Your task to perform on an android device: turn on airplane mode Image 0: 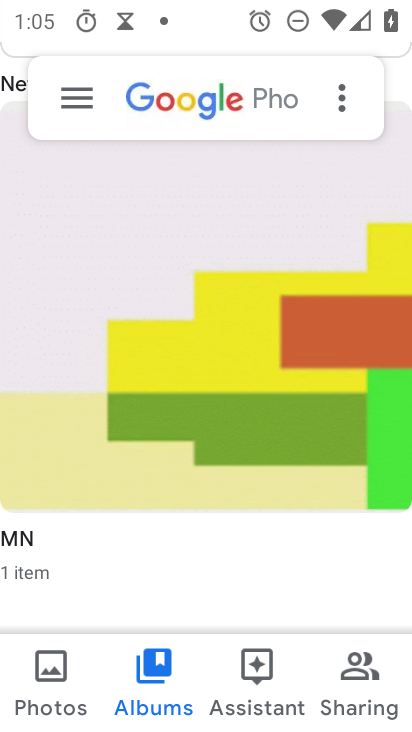
Step 0: press home button
Your task to perform on an android device: turn on airplane mode Image 1: 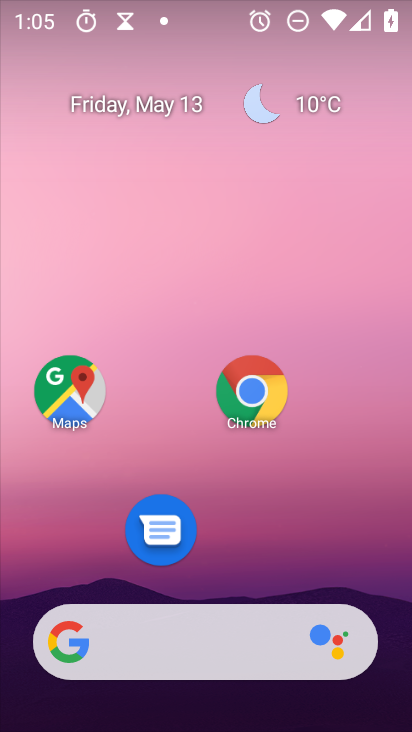
Step 1: drag from (149, 630) to (336, 78)
Your task to perform on an android device: turn on airplane mode Image 2: 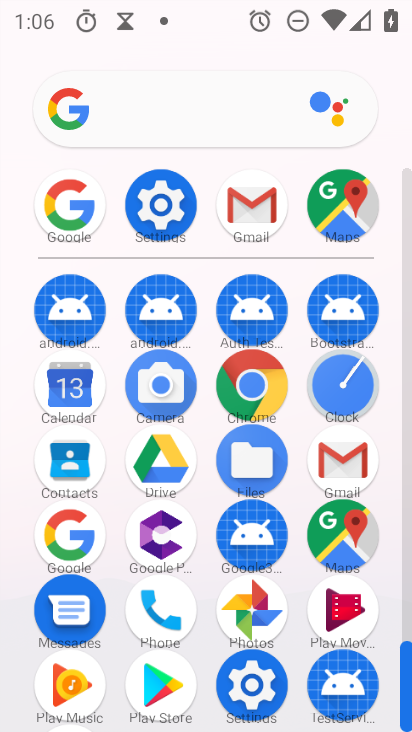
Step 2: click (170, 210)
Your task to perform on an android device: turn on airplane mode Image 3: 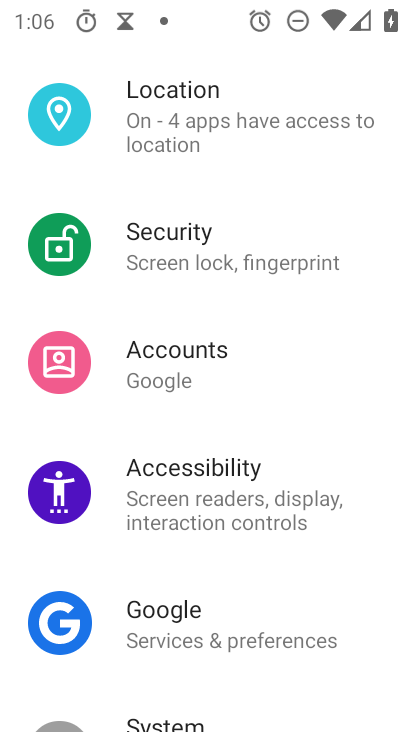
Step 3: drag from (323, 93) to (234, 620)
Your task to perform on an android device: turn on airplane mode Image 4: 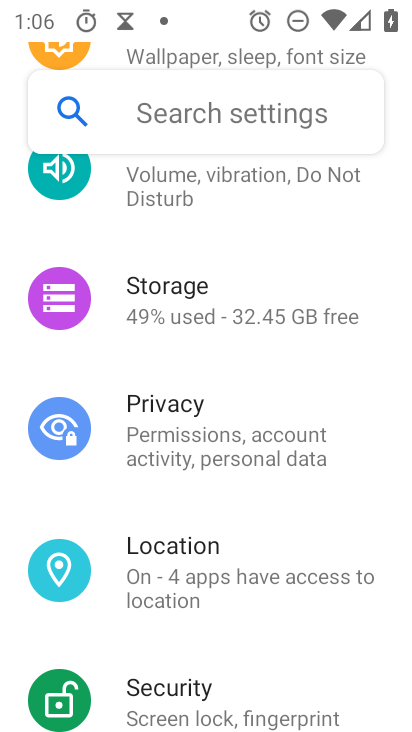
Step 4: drag from (285, 233) to (196, 612)
Your task to perform on an android device: turn on airplane mode Image 5: 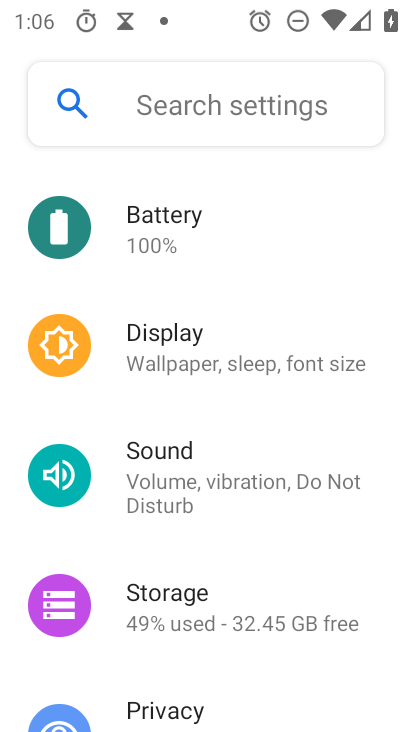
Step 5: drag from (274, 232) to (207, 552)
Your task to perform on an android device: turn on airplane mode Image 6: 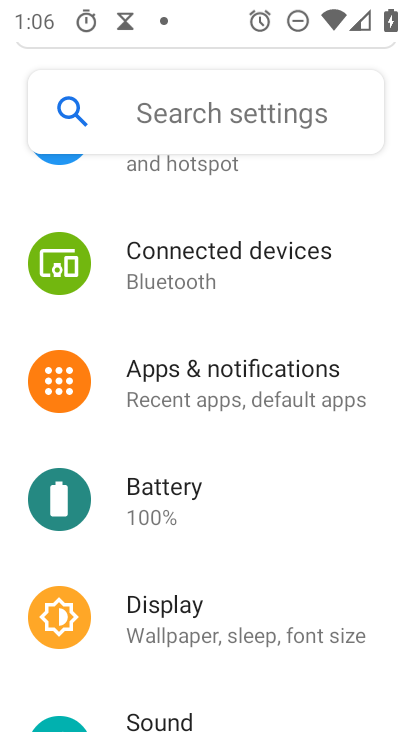
Step 6: drag from (328, 193) to (234, 591)
Your task to perform on an android device: turn on airplane mode Image 7: 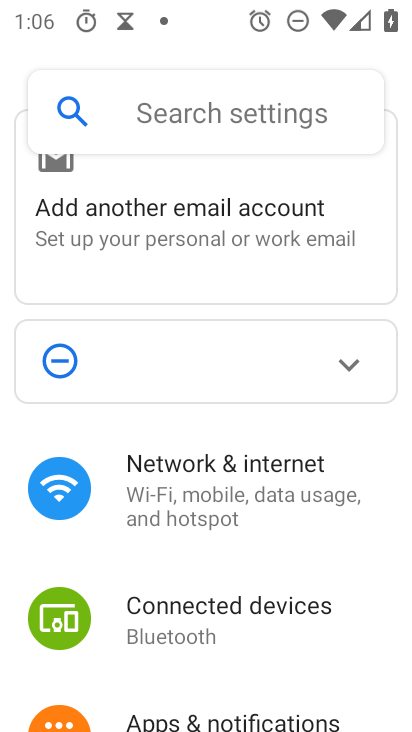
Step 7: click (248, 488)
Your task to perform on an android device: turn on airplane mode Image 8: 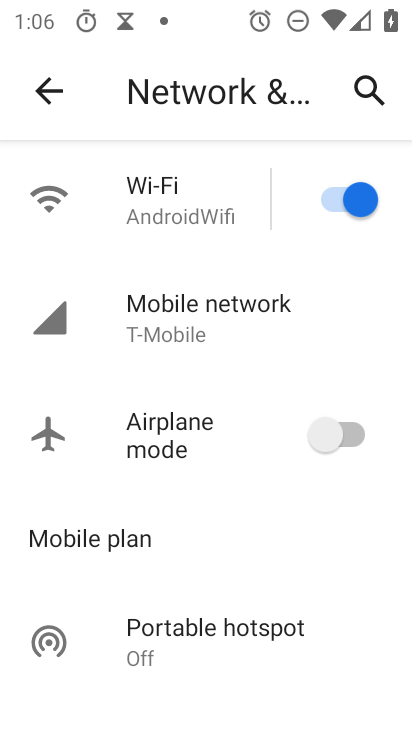
Step 8: click (356, 433)
Your task to perform on an android device: turn on airplane mode Image 9: 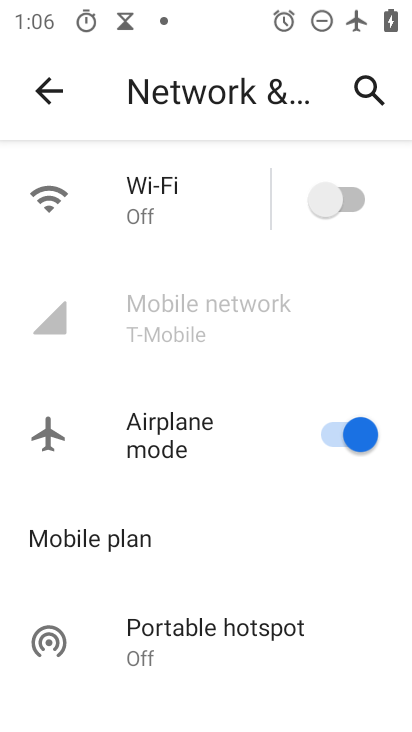
Step 9: task complete